Your task to perform on an android device: Go to Android settings Image 0: 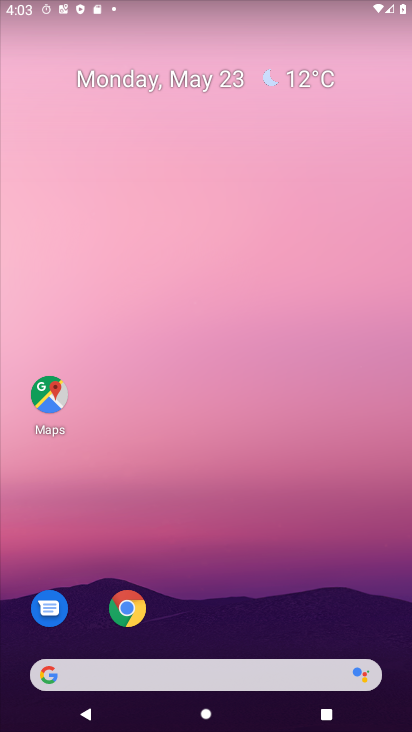
Step 0: drag from (270, 570) to (195, 109)
Your task to perform on an android device: Go to Android settings Image 1: 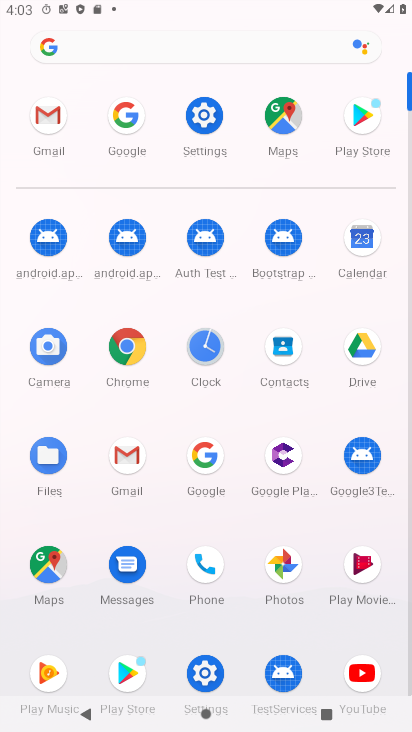
Step 1: click (200, 114)
Your task to perform on an android device: Go to Android settings Image 2: 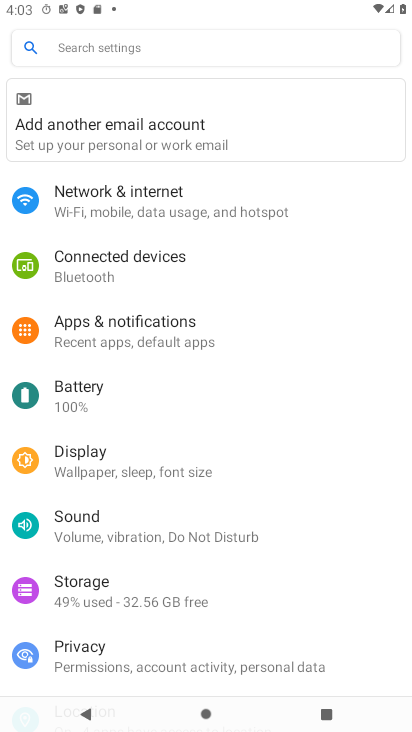
Step 2: drag from (236, 617) to (175, 32)
Your task to perform on an android device: Go to Android settings Image 3: 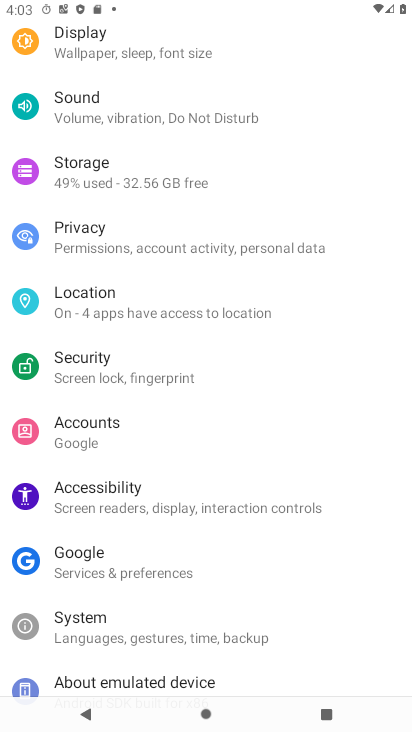
Step 3: click (196, 680)
Your task to perform on an android device: Go to Android settings Image 4: 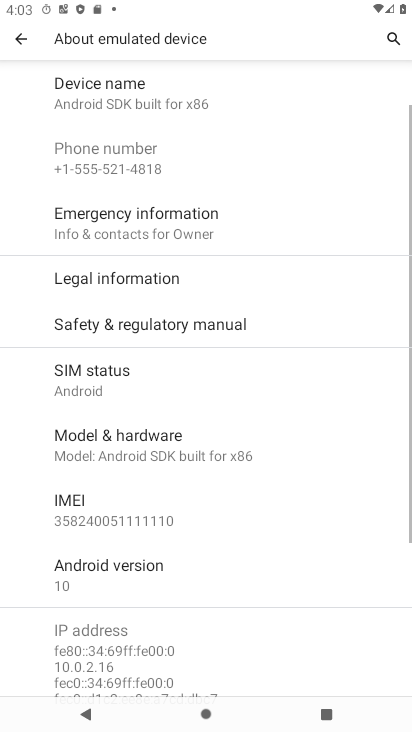
Step 4: click (176, 580)
Your task to perform on an android device: Go to Android settings Image 5: 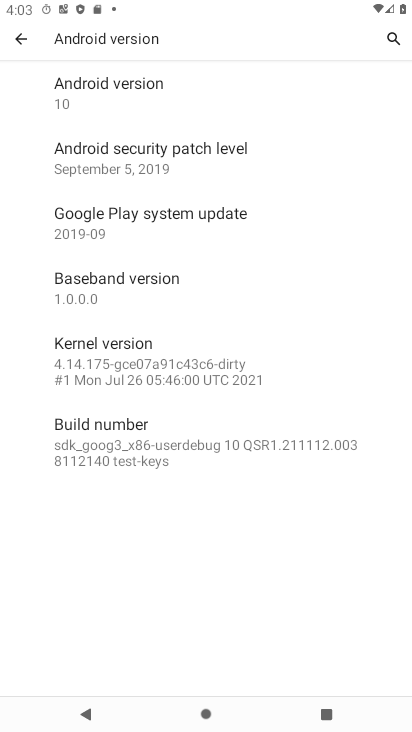
Step 5: task complete